Your task to perform on an android device: toggle improve location accuracy Image 0: 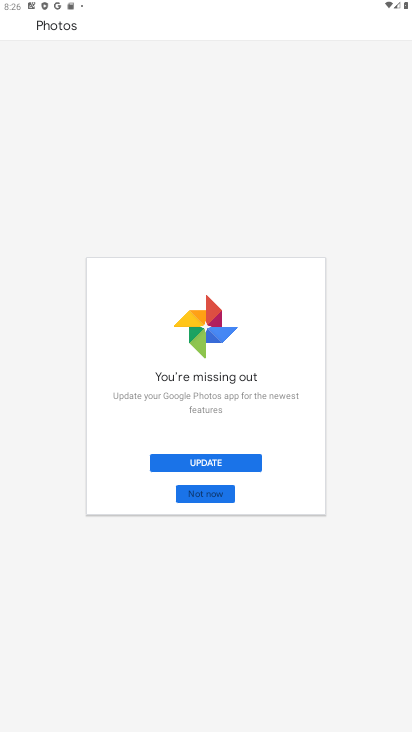
Step 0: press home button
Your task to perform on an android device: toggle improve location accuracy Image 1: 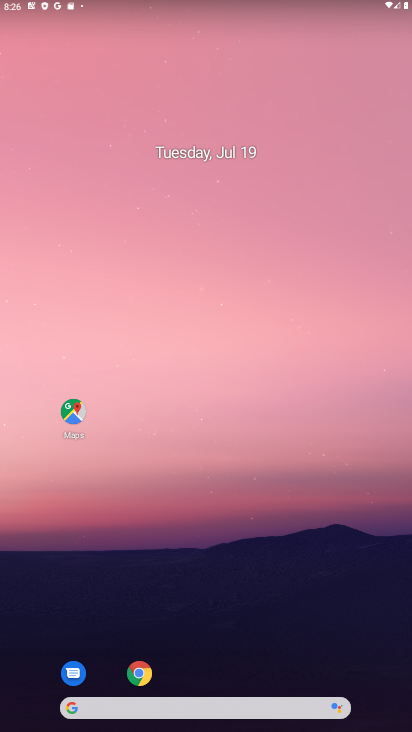
Step 1: drag from (196, 655) to (225, 270)
Your task to perform on an android device: toggle improve location accuracy Image 2: 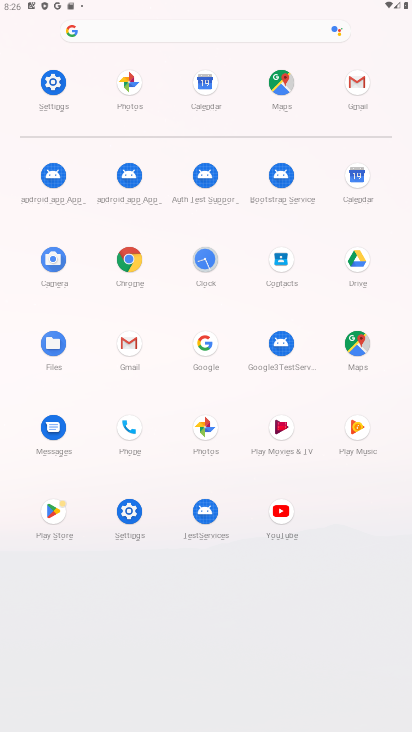
Step 2: click (55, 90)
Your task to perform on an android device: toggle improve location accuracy Image 3: 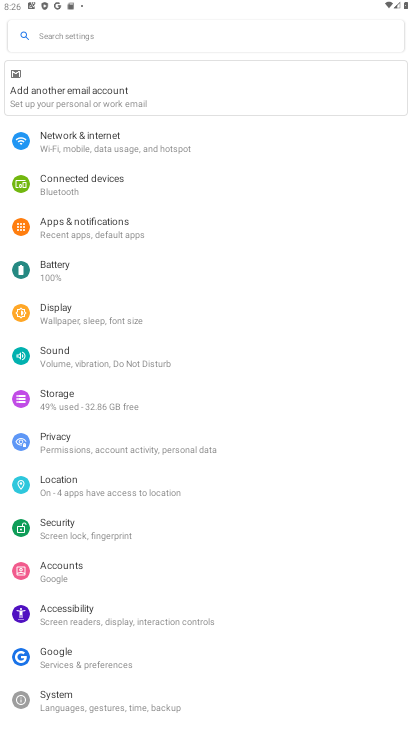
Step 3: click (99, 486)
Your task to perform on an android device: toggle improve location accuracy Image 4: 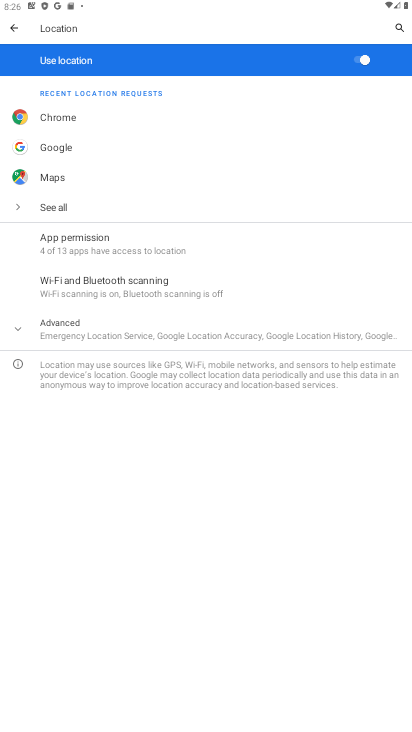
Step 4: click (129, 320)
Your task to perform on an android device: toggle improve location accuracy Image 5: 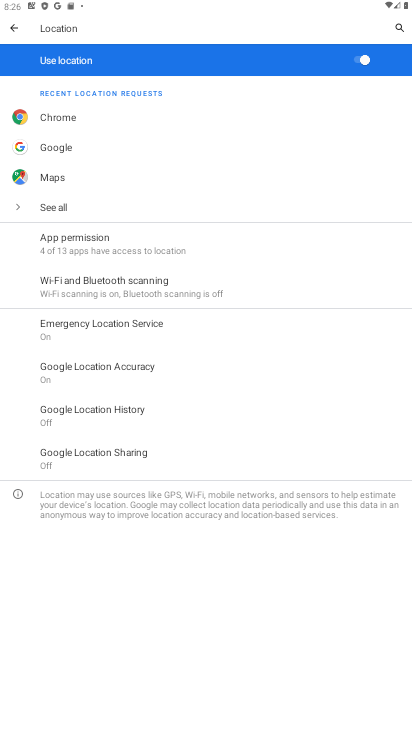
Step 5: click (179, 371)
Your task to perform on an android device: toggle improve location accuracy Image 6: 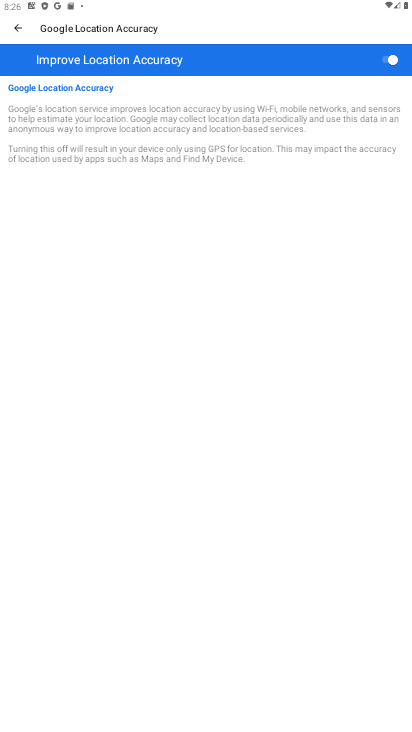
Step 6: click (390, 52)
Your task to perform on an android device: toggle improve location accuracy Image 7: 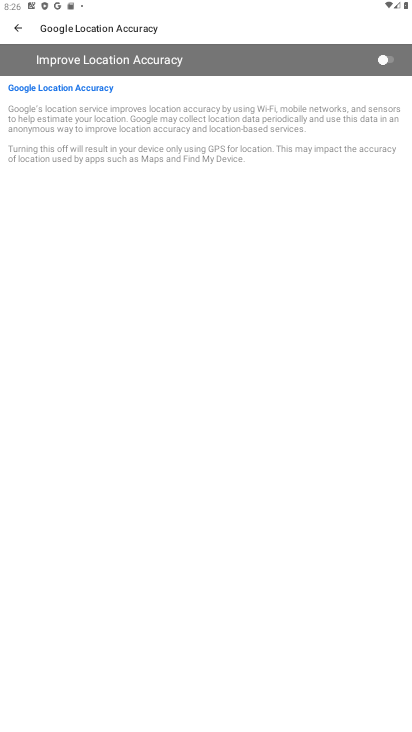
Step 7: task complete